Your task to perform on an android device: Check the news Image 0: 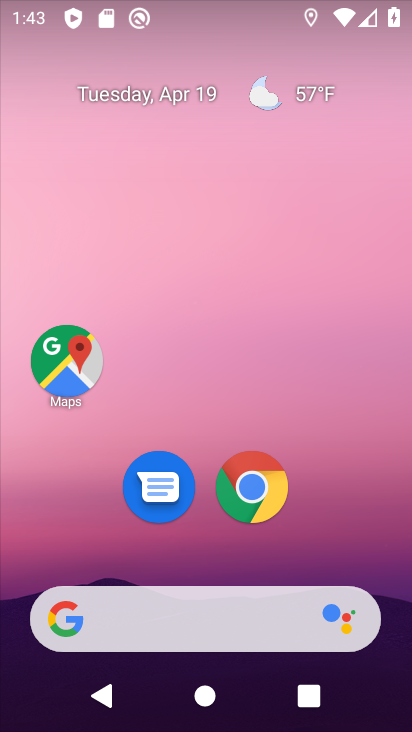
Step 0: drag from (363, 538) to (394, 67)
Your task to perform on an android device: Check the news Image 1: 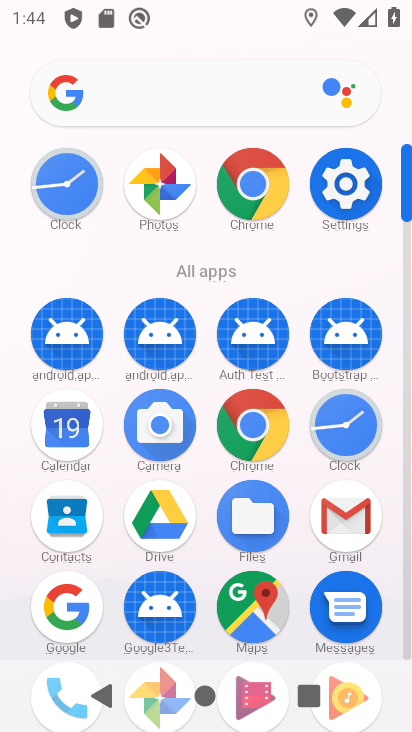
Step 1: click (264, 419)
Your task to perform on an android device: Check the news Image 2: 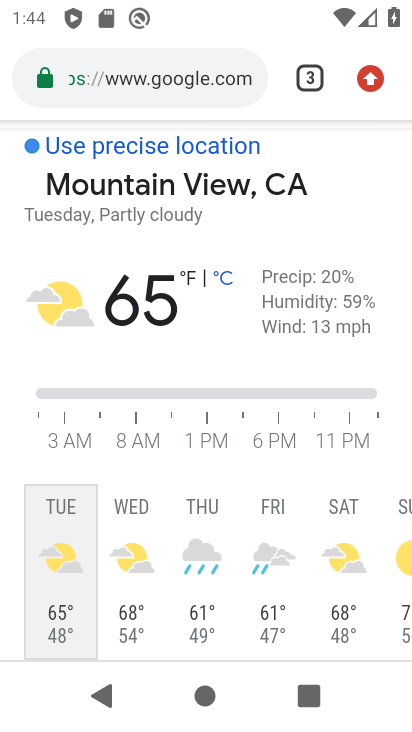
Step 2: click (308, 78)
Your task to perform on an android device: Check the news Image 3: 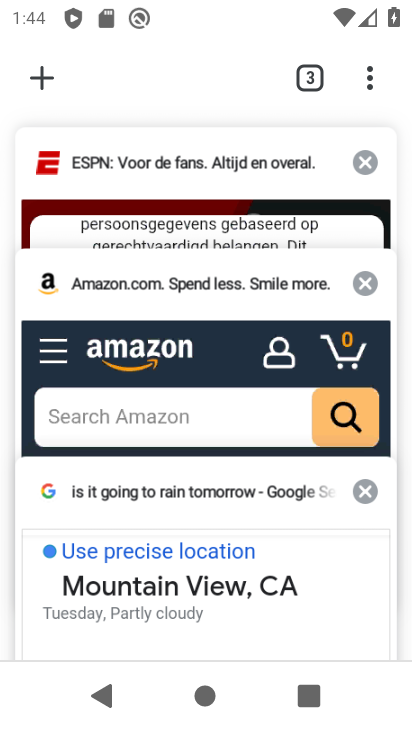
Step 3: click (51, 75)
Your task to perform on an android device: Check the news Image 4: 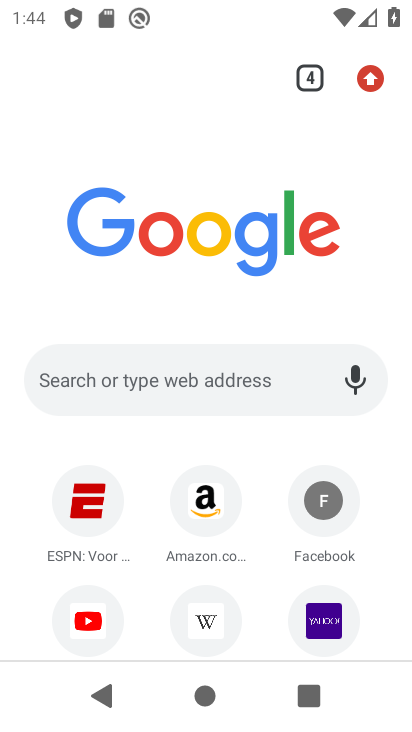
Step 4: type "the news"
Your task to perform on an android device: Check the news Image 5: 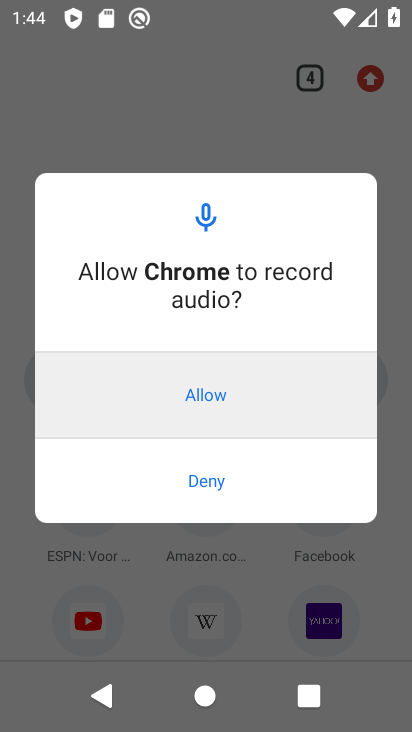
Step 5: click (214, 476)
Your task to perform on an android device: Check the news Image 6: 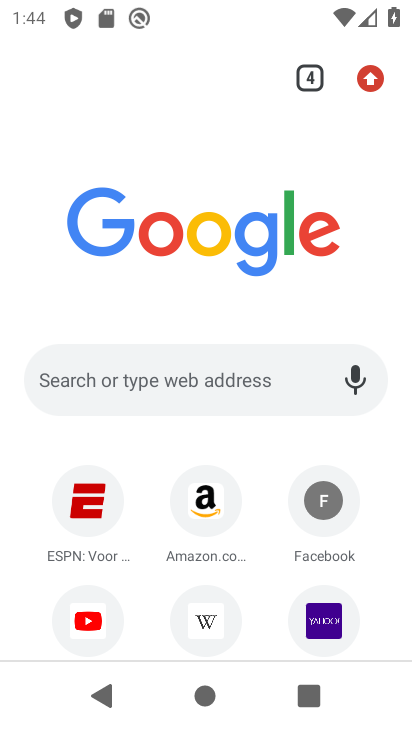
Step 6: click (198, 398)
Your task to perform on an android device: Check the news Image 7: 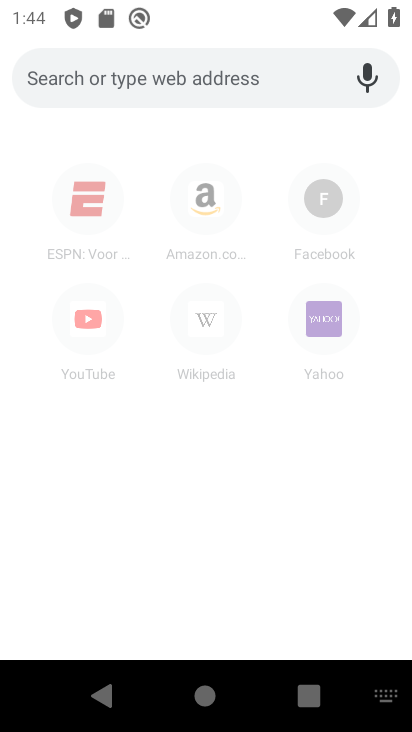
Step 7: type "news"
Your task to perform on an android device: Check the news Image 8: 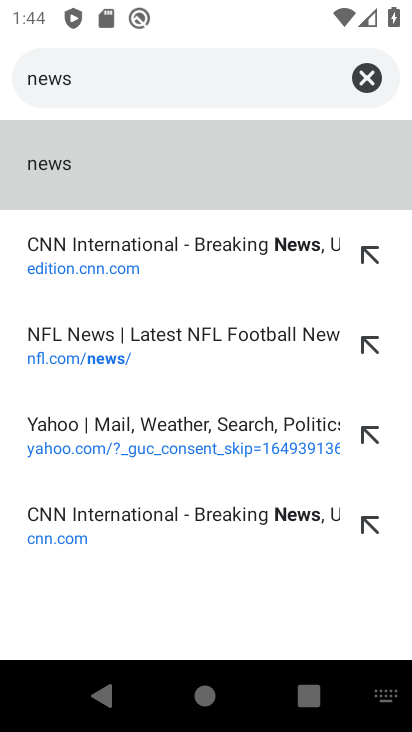
Step 8: click (48, 163)
Your task to perform on an android device: Check the news Image 9: 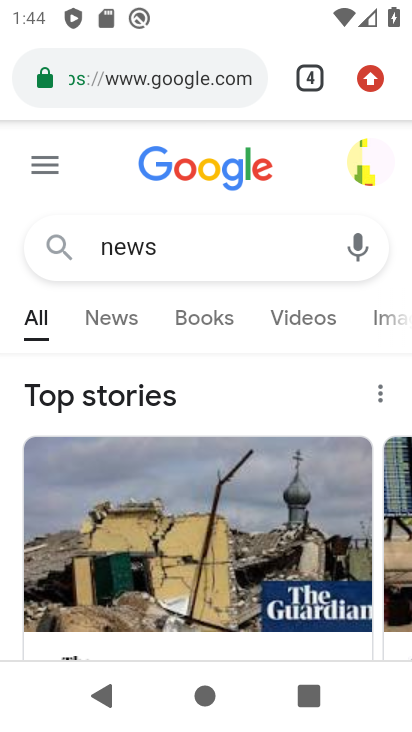
Step 9: task complete